Your task to perform on an android device: manage bookmarks in the chrome app Image 0: 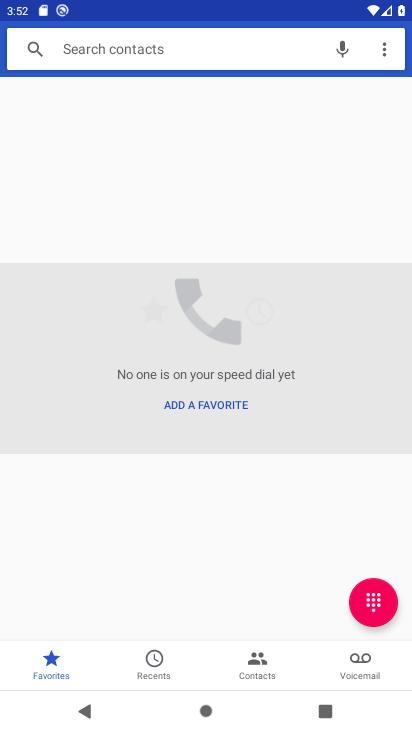
Step 0: press home button
Your task to perform on an android device: manage bookmarks in the chrome app Image 1: 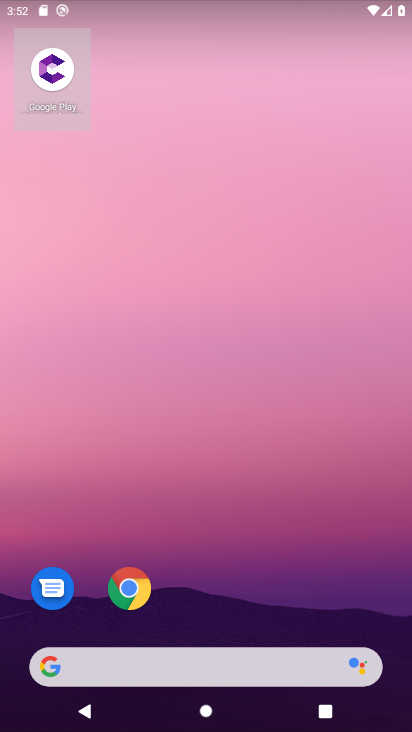
Step 1: click (133, 587)
Your task to perform on an android device: manage bookmarks in the chrome app Image 2: 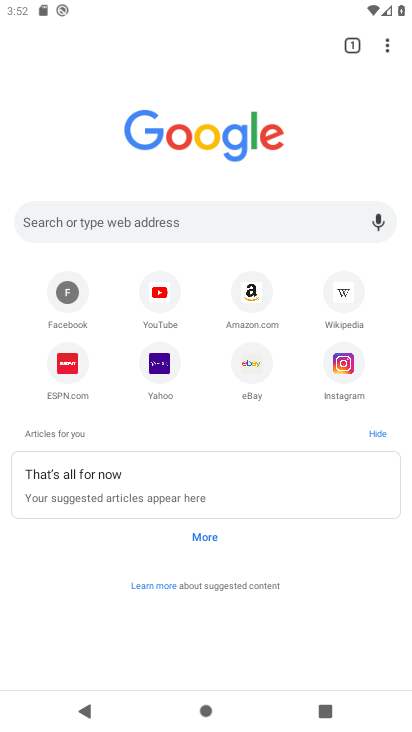
Step 2: click (379, 47)
Your task to perform on an android device: manage bookmarks in the chrome app Image 3: 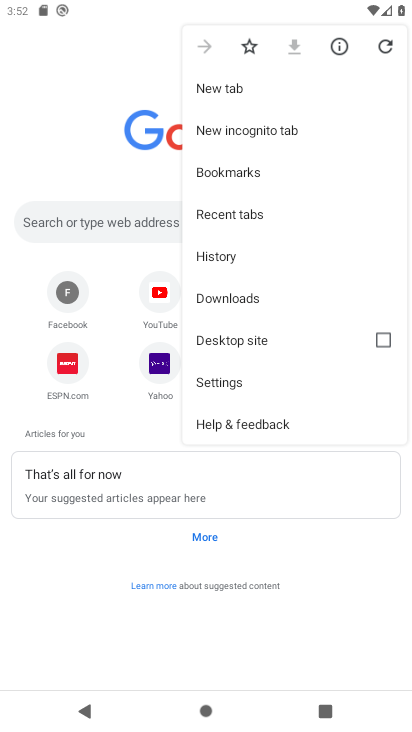
Step 3: click (243, 174)
Your task to perform on an android device: manage bookmarks in the chrome app Image 4: 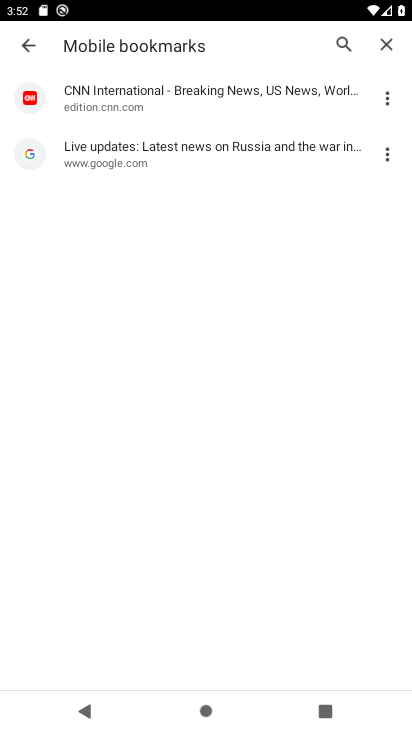
Step 4: click (386, 97)
Your task to perform on an android device: manage bookmarks in the chrome app Image 5: 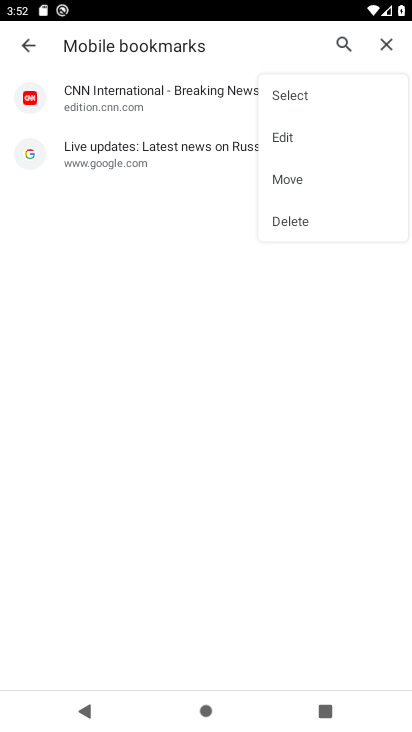
Step 5: click (305, 90)
Your task to perform on an android device: manage bookmarks in the chrome app Image 6: 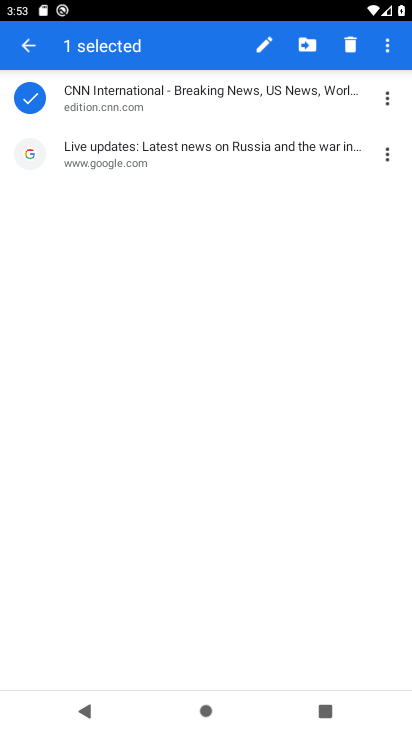
Step 6: click (389, 149)
Your task to perform on an android device: manage bookmarks in the chrome app Image 7: 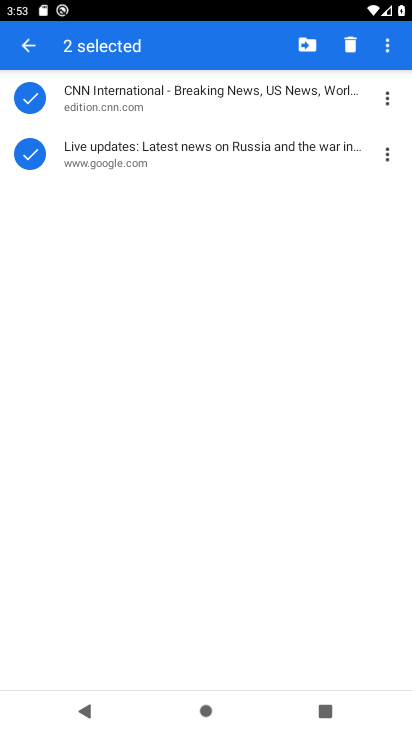
Step 7: click (315, 49)
Your task to perform on an android device: manage bookmarks in the chrome app Image 8: 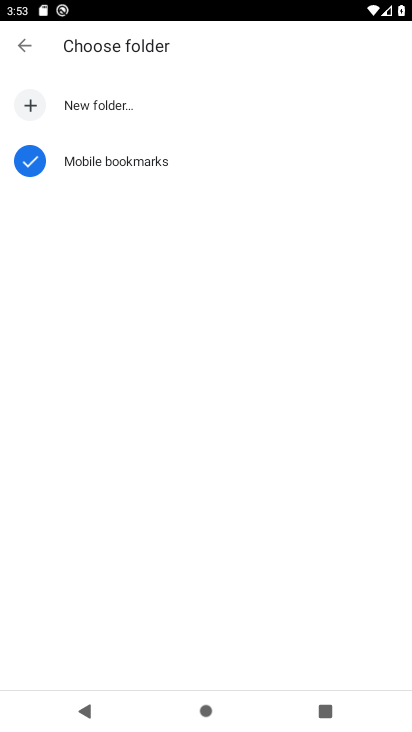
Step 8: click (115, 109)
Your task to perform on an android device: manage bookmarks in the chrome app Image 9: 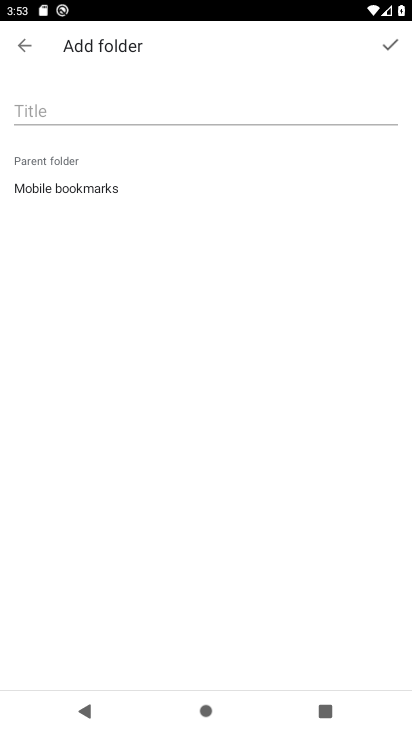
Step 9: click (136, 110)
Your task to perform on an android device: manage bookmarks in the chrome app Image 10: 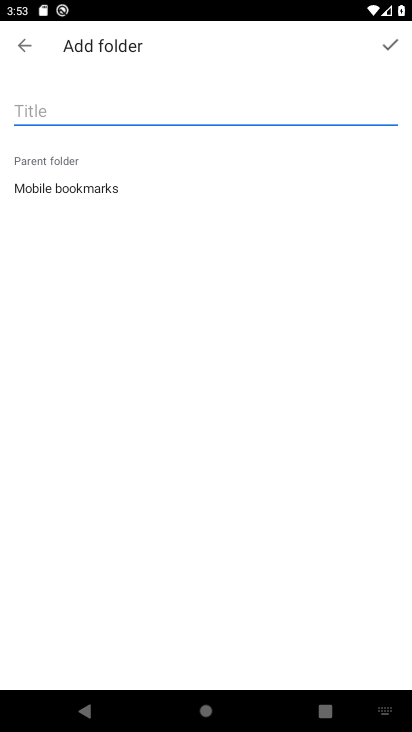
Step 10: type "booked"
Your task to perform on an android device: manage bookmarks in the chrome app Image 11: 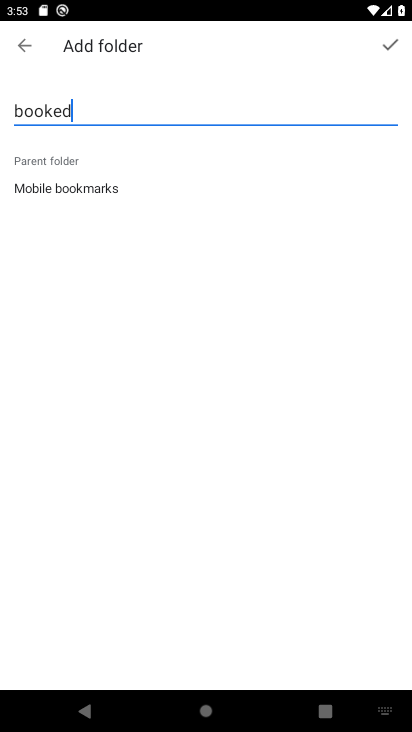
Step 11: click (398, 41)
Your task to perform on an android device: manage bookmarks in the chrome app Image 12: 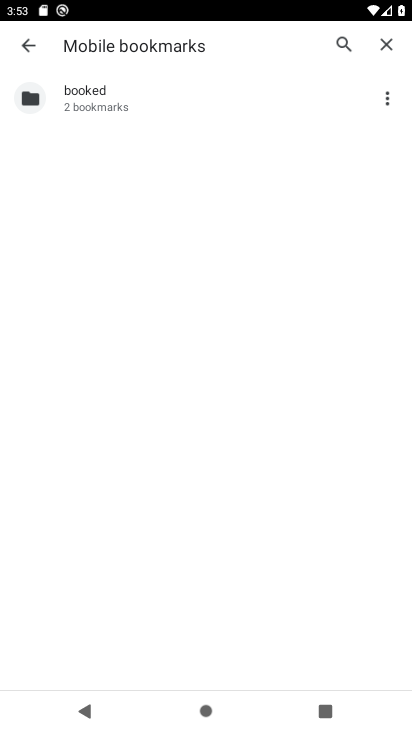
Step 12: task complete